Your task to perform on an android device: Open the web browser Image 0: 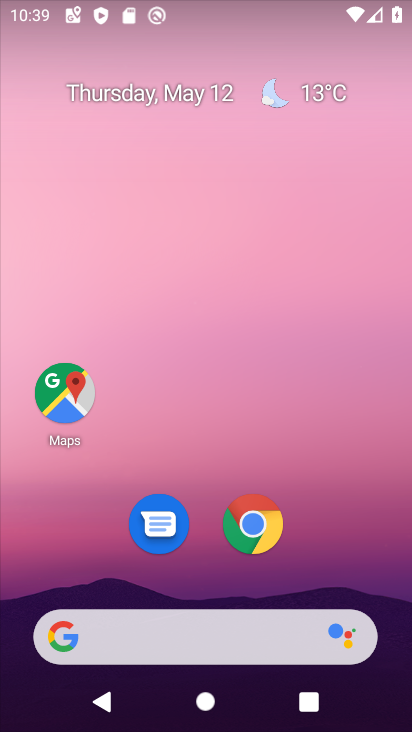
Step 0: click (263, 525)
Your task to perform on an android device: Open the web browser Image 1: 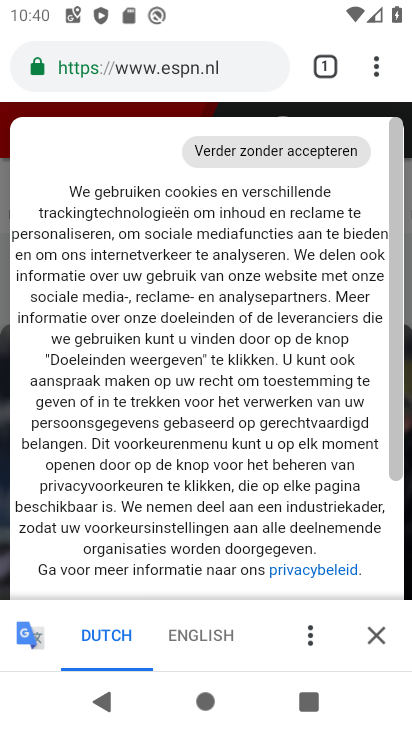
Step 1: press back button
Your task to perform on an android device: Open the web browser Image 2: 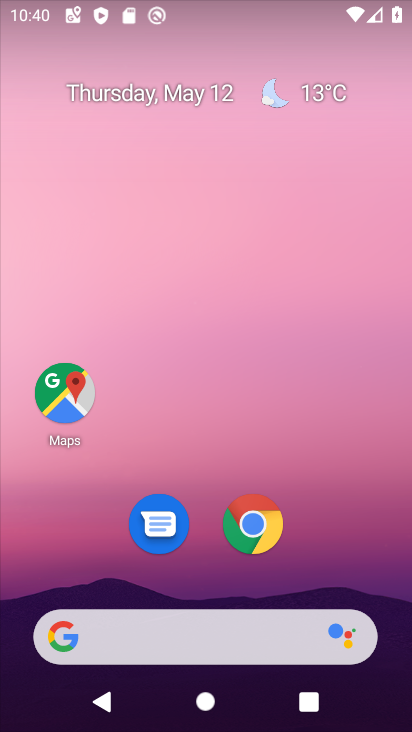
Step 2: click (256, 523)
Your task to perform on an android device: Open the web browser Image 3: 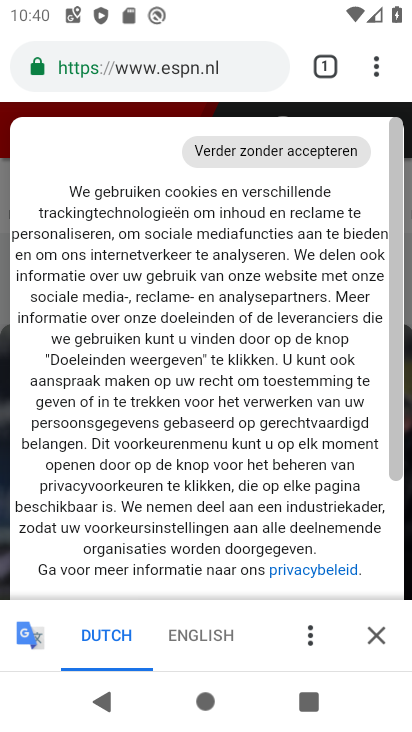
Step 3: click (251, 64)
Your task to perform on an android device: Open the web browser Image 4: 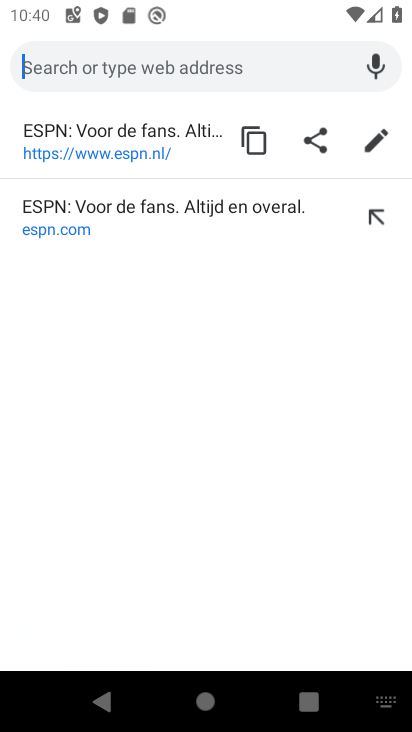
Step 4: task complete